Your task to perform on an android device: What's the news in Chile? Image 0: 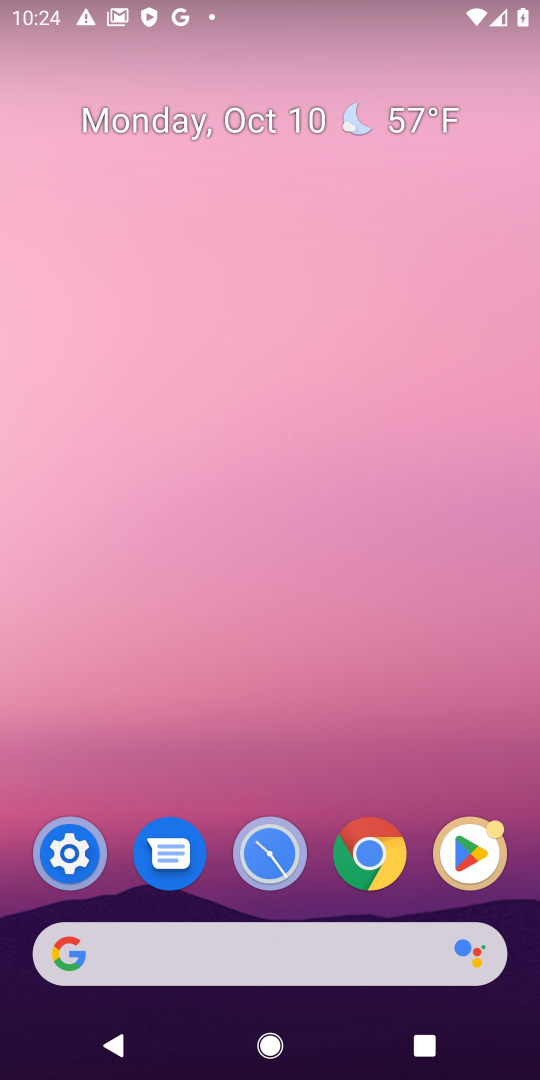
Step 0: press home button
Your task to perform on an android device: What's the news in Chile? Image 1: 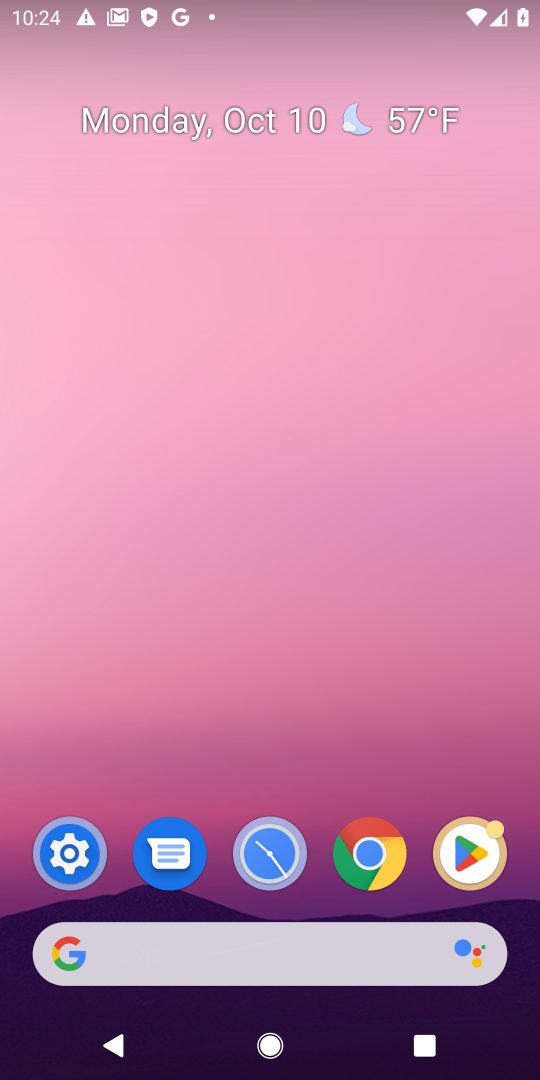
Step 1: click (262, 953)
Your task to perform on an android device: What's the news in Chile? Image 2: 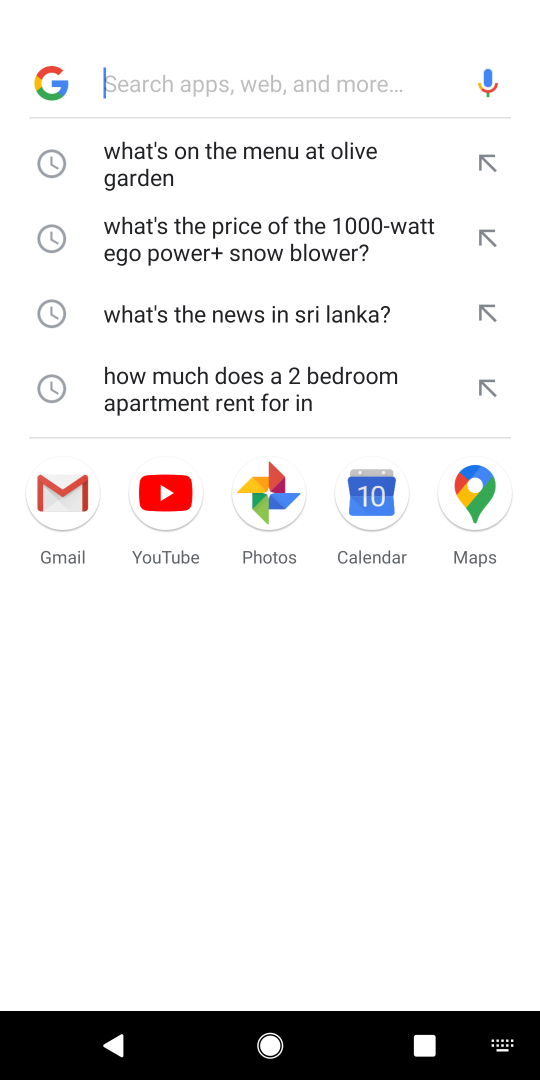
Step 2: type "What's the news in Chile"
Your task to perform on an android device: What's the news in Chile? Image 3: 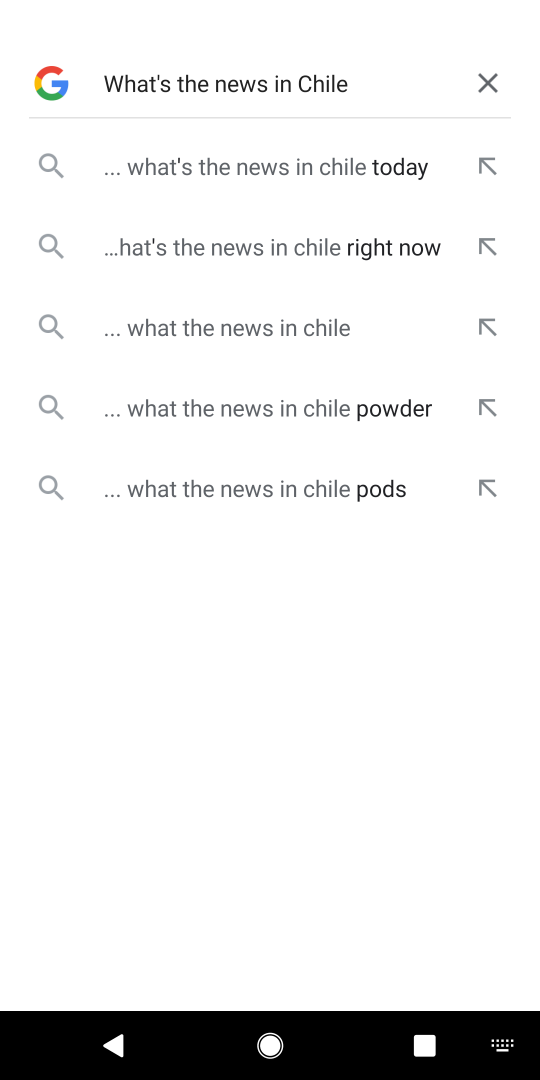
Step 3: press enter
Your task to perform on an android device: What's the news in Chile? Image 4: 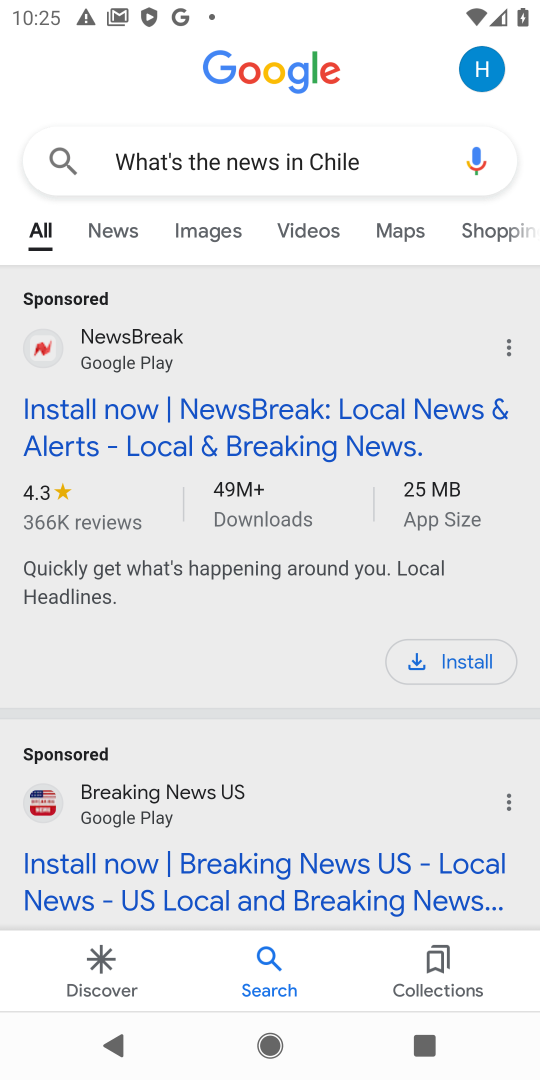
Step 4: drag from (312, 837) to (353, 272)
Your task to perform on an android device: What's the news in Chile? Image 5: 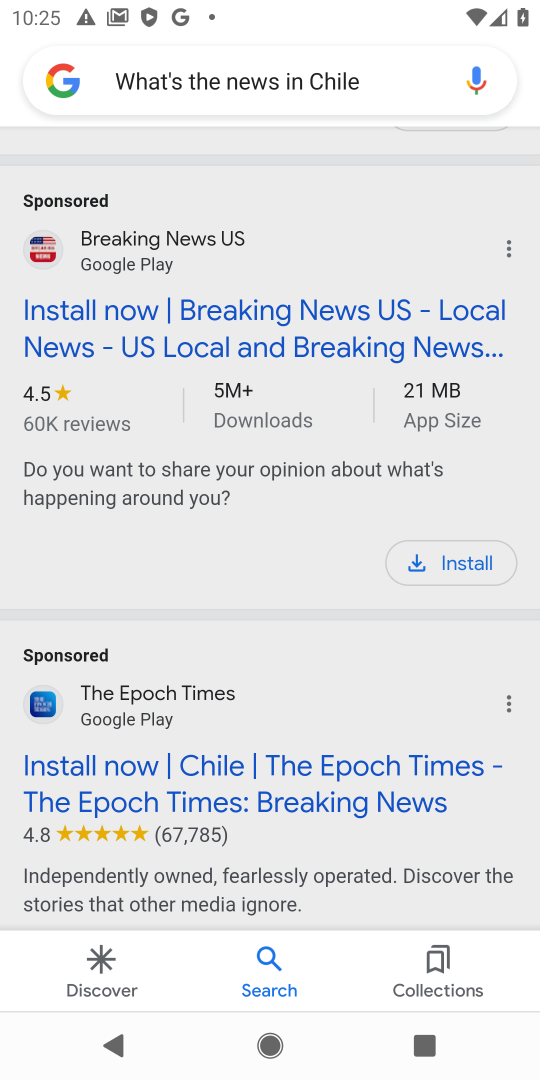
Step 5: drag from (329, 774) to (348, 400)
Your task to perform on an android device: What's the news in Chile? Image 6: 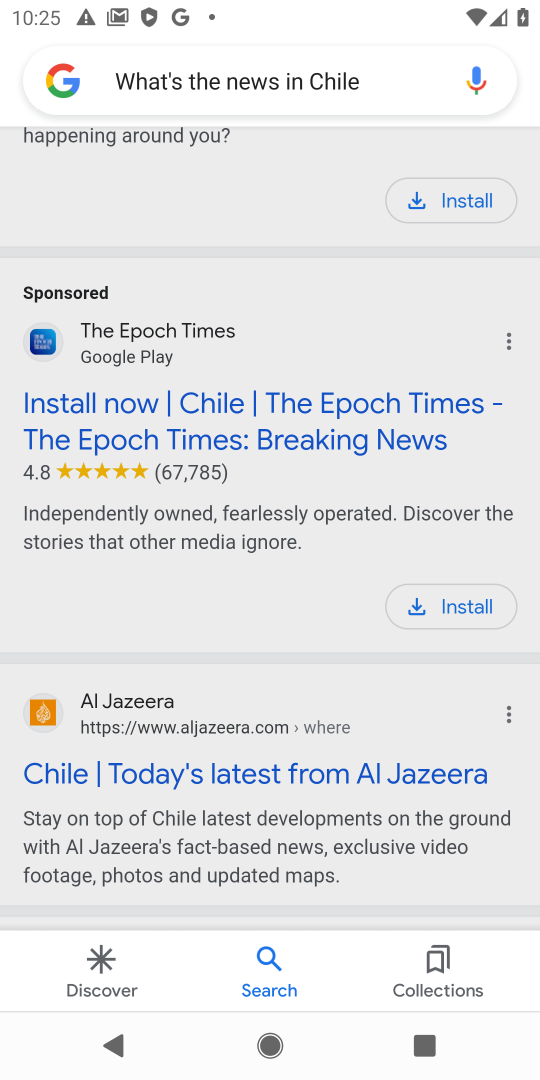
Step 6: drag from (302, 819) to (338, 495)
Your task to perform on an android device: What's the news in Chile? Image 7: 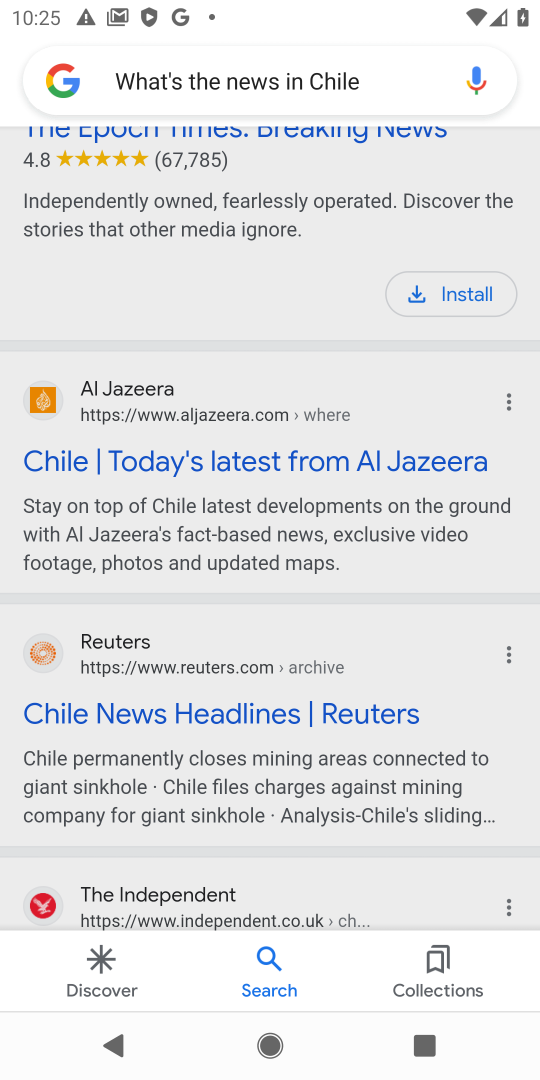
Step 7: click (252, 717)
Your task to perform on an android device: What's the news in Chile? Image 8: 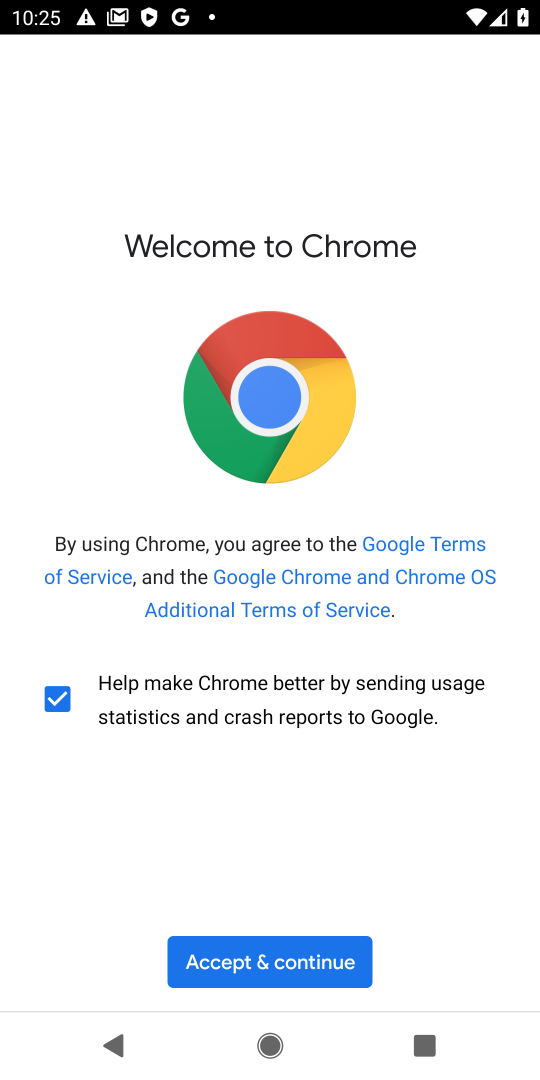
Step 8: click (214, 978)
Your task to perform on an android device: What's the news in Chile? Image 9: 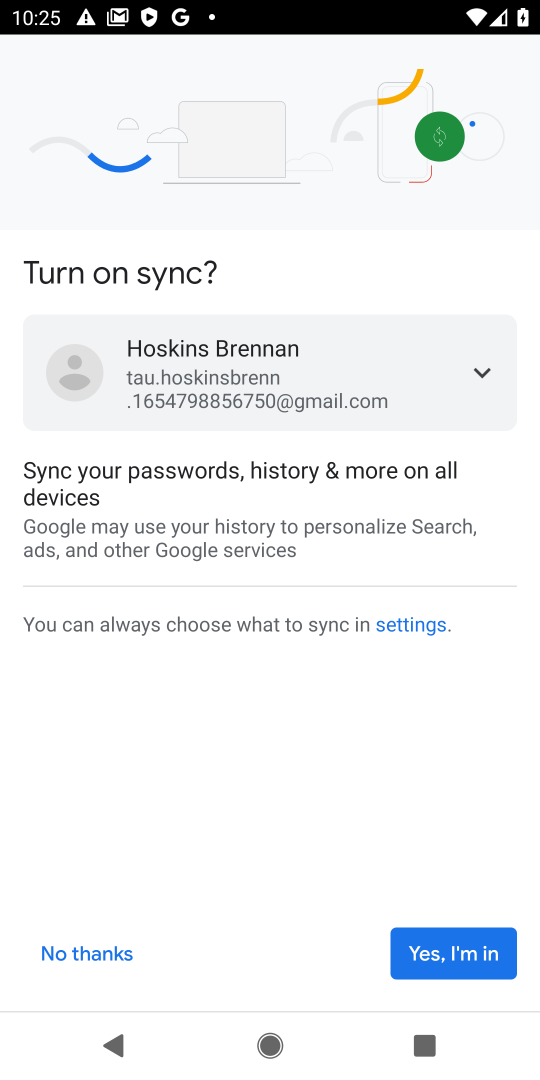
Step 9: click (445, 944)
Your task to perform on an android device: What's the news in Chile? Image 10: 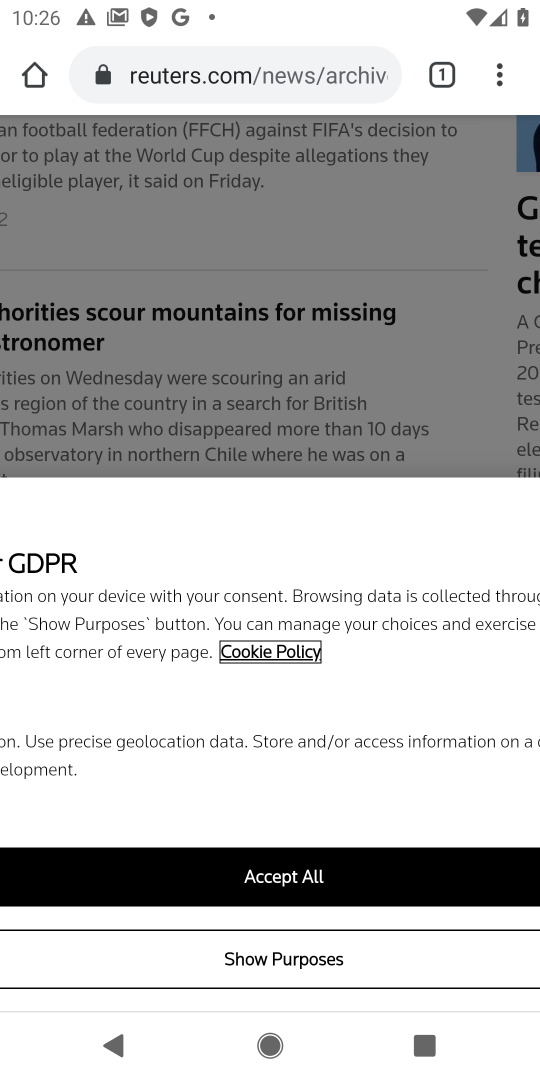
Step 10: click (329, 890)
Your task to perform on an android device: What's the news in Chile? Image 11: 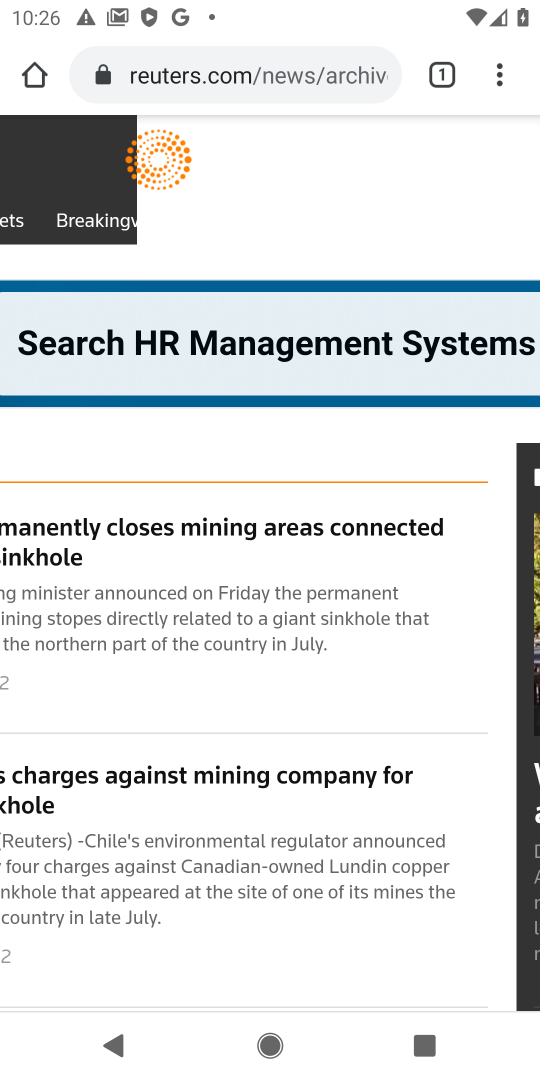
Step 11: task complete